Your task to perform on an android device: open app "Booking.com: Hotels and more" (install if not already installed) and go to login screen Image 0: 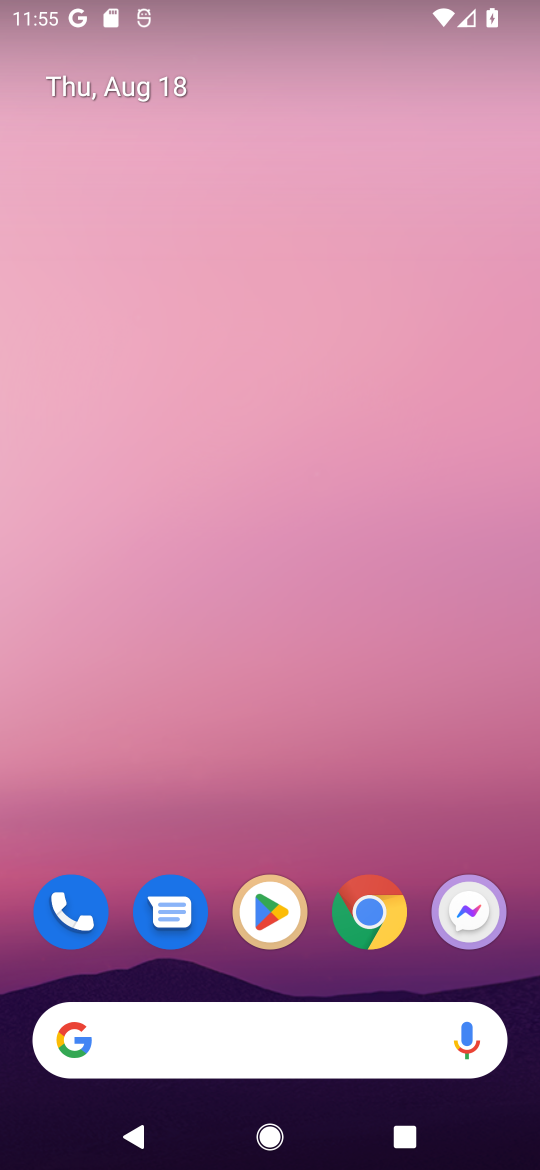
Step 0: click (265, 921)
Your task to perform on an android device: open app "Booking.com: Hotels and more" (install if not already installed) and go to login screen Image 1: 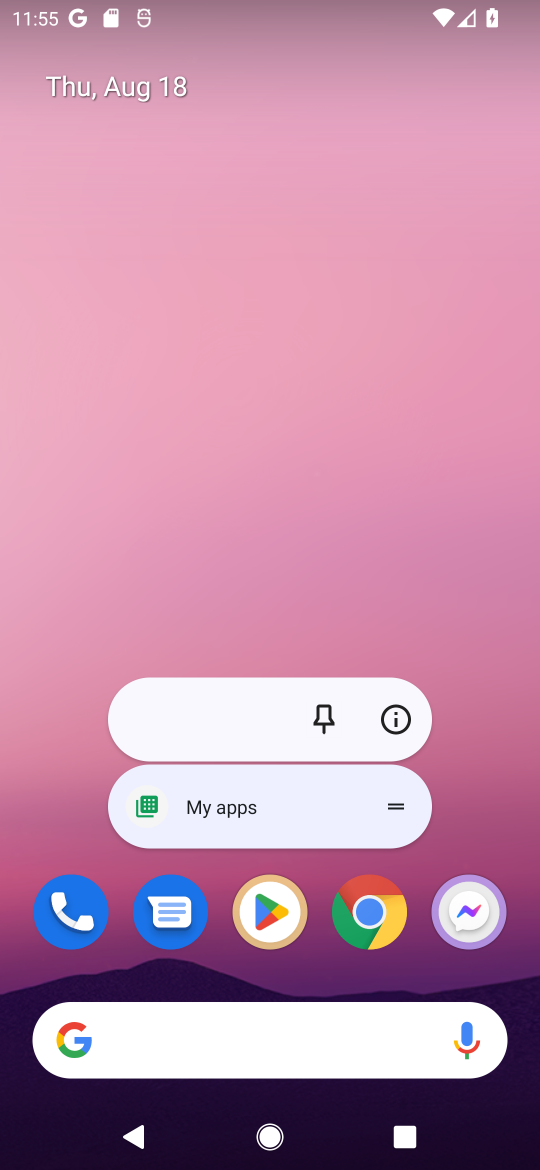
Step 1: click (264, 921)
Your task to perform on an android device: open app "Booking.com: Hotels and more" (install if not already installed) and go to login screen Image 2: 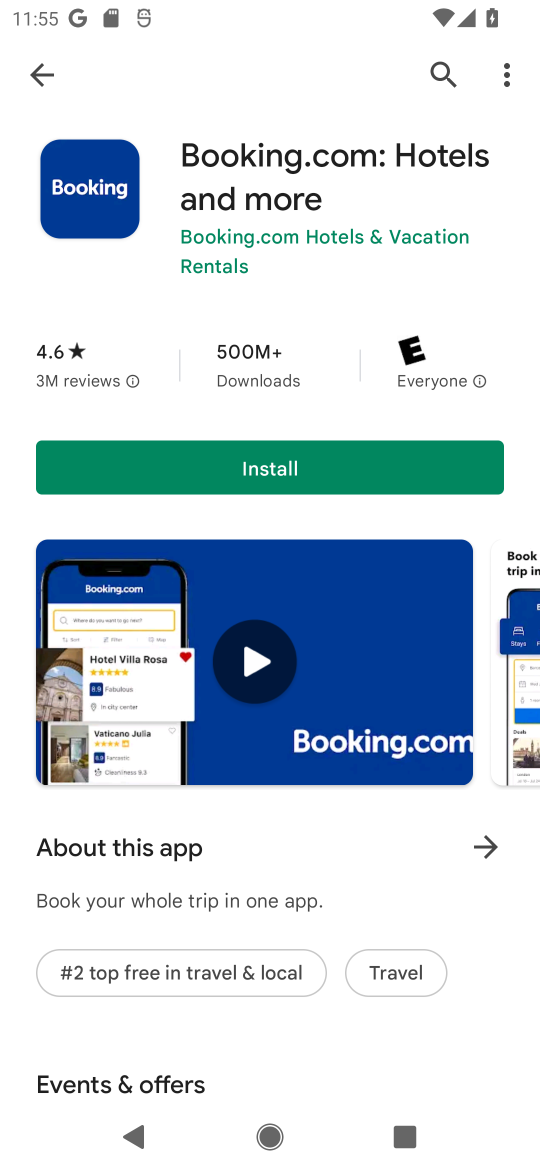
Step 2: click (262, 462)
Your task to perform on an android device: open app "Booking.com: Hotels and more" (install if not already installed) and go to login screen Image 3: 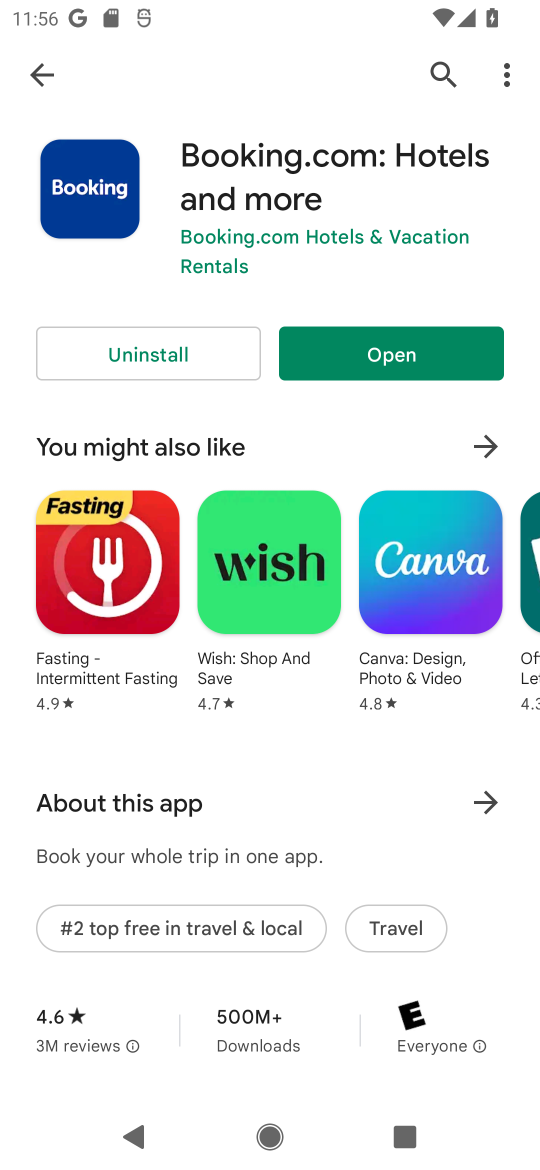
Step 3: click (365, 357)
Your task to perform on an android device: open app "Booking.com: Hotels and more" (install if not already installed) and go to login screen Image 4: 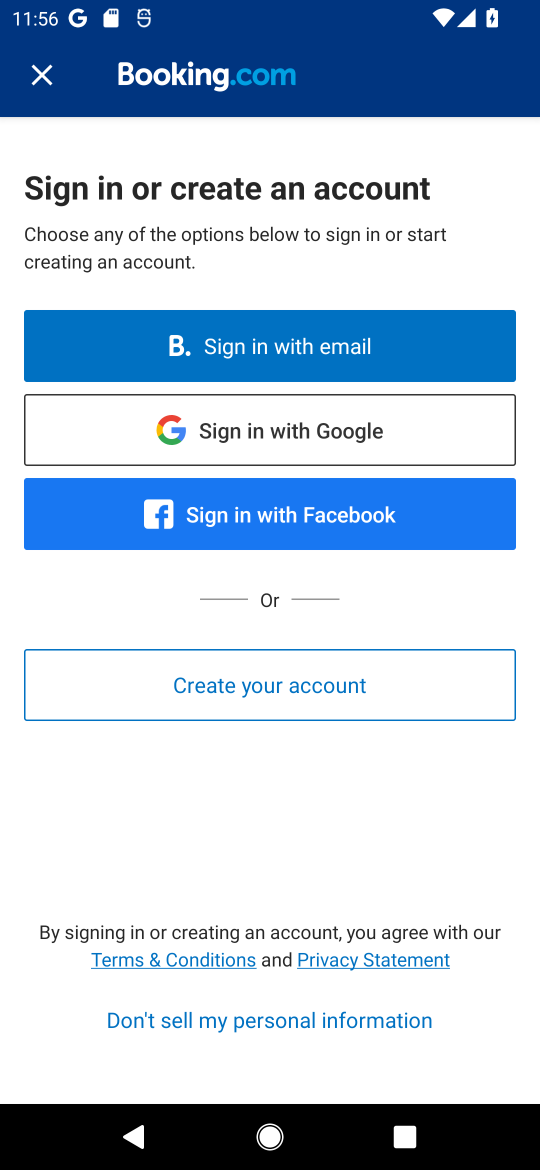
Step 4: task complete